Your task to perform on an android device: open device folders in google photos Image 0: 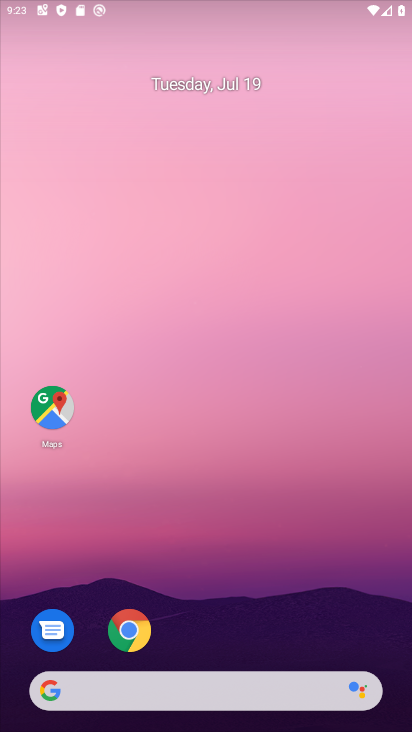
Step 0: drag from (248, 675) to (294, 58)
Your task to perform on an android device: open device folders in google photos Image 1: 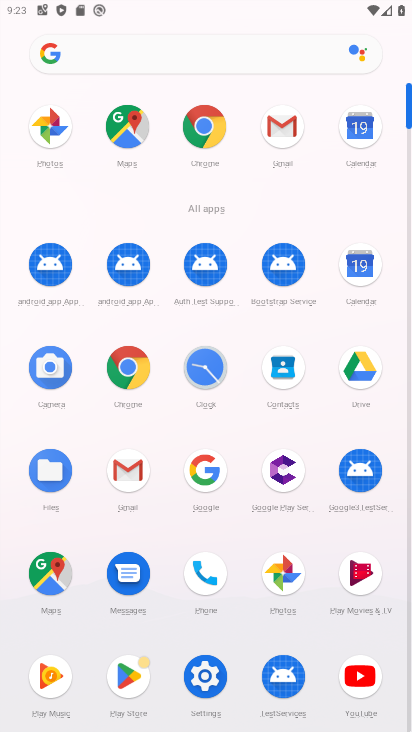
Step 1: click (272, 575)
Your task to perform on an android device: open device folders in google photos Image 2: 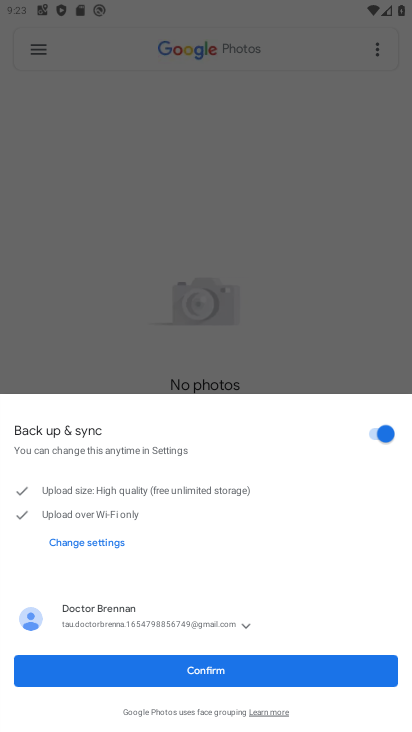
Step 2: click (211, 678)
Your task to perform on an android device: open device folders in google photos Image 3: 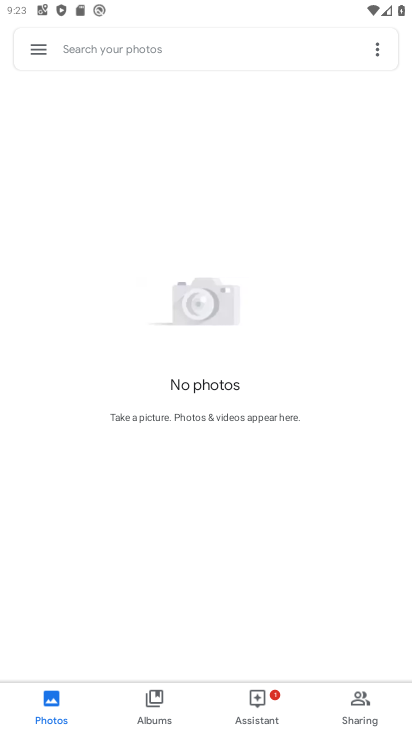
Step 3: click (155, 694)
Your task to perform on an android device: open device folders in google photos Image 4: 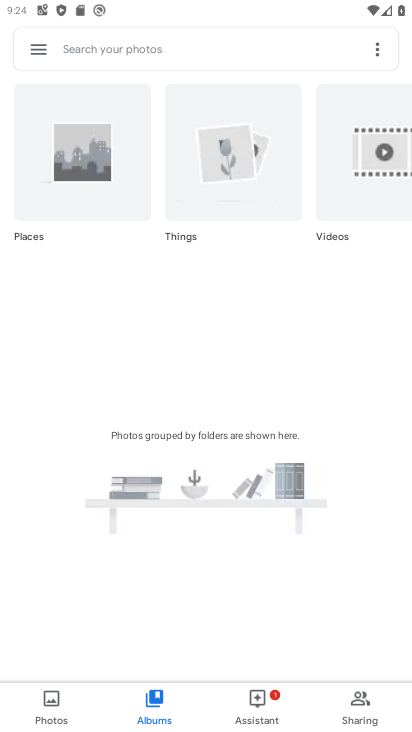
Step 4: task complete